Your task to perform on an android device: Open Google Maps and go to "Timeline" Image 0: 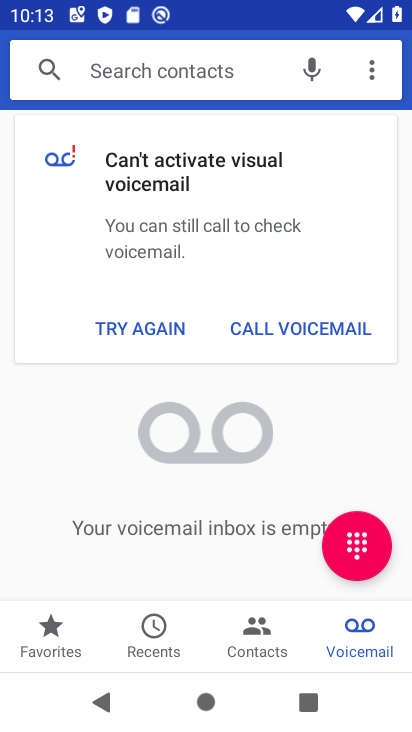
Step 0: press home button
Your task to perform on an android device: Open Google Maps and go to "Timeline" Image 1: 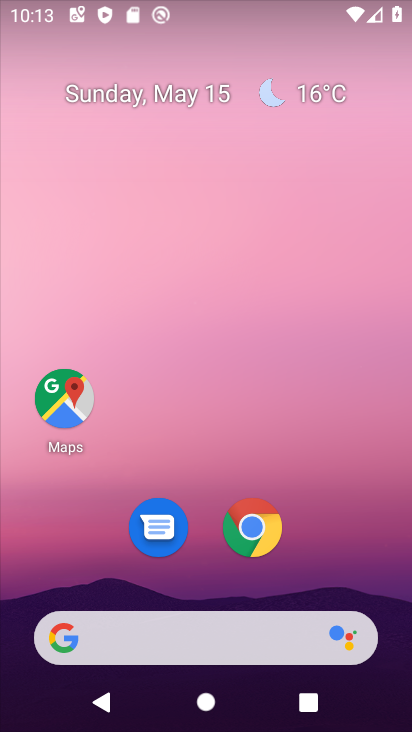
Step 1: click (64, 402)
Your task to perform on an android device: Open Google Maps and go to "Timeline" Image 2: 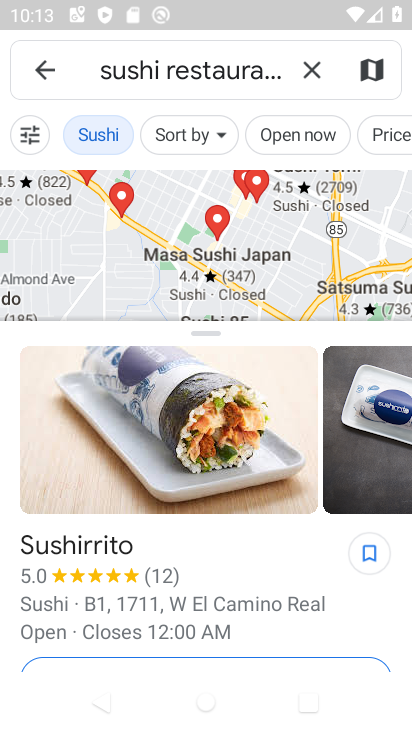
Step 2: click (305, 66)
Your task to perform on an android device: Open Google Maps and go to "Timeline" Image 3: 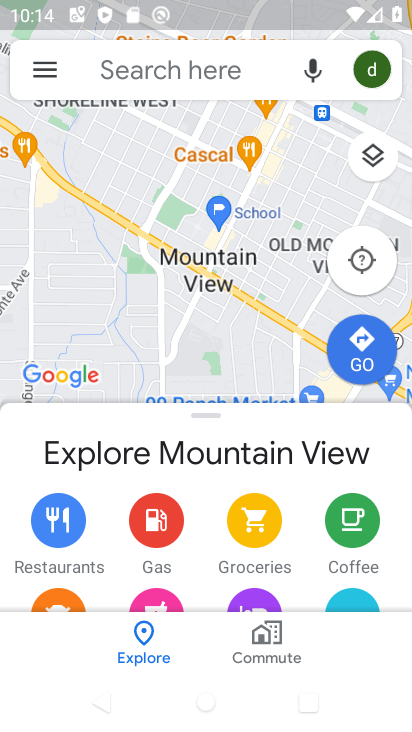
Step 3: click (48, 72)
Your task to perform on an android device: Open Google Maps and go to "Timeline" Image 4: 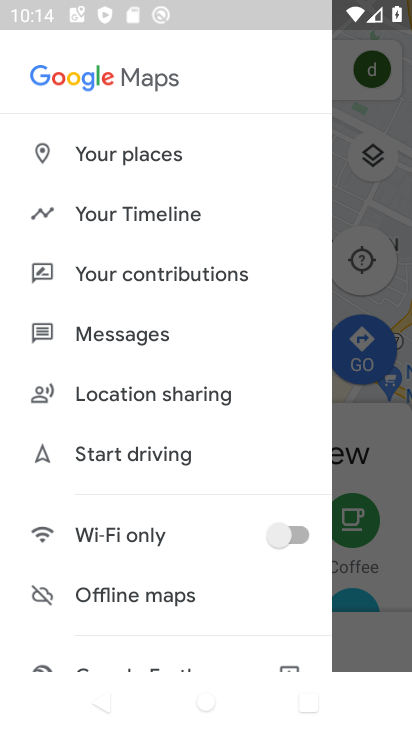
Step 4: click (101, 211)
Your task to perform on an android device: Open Google Maps and go to "Timeline" Image 5: 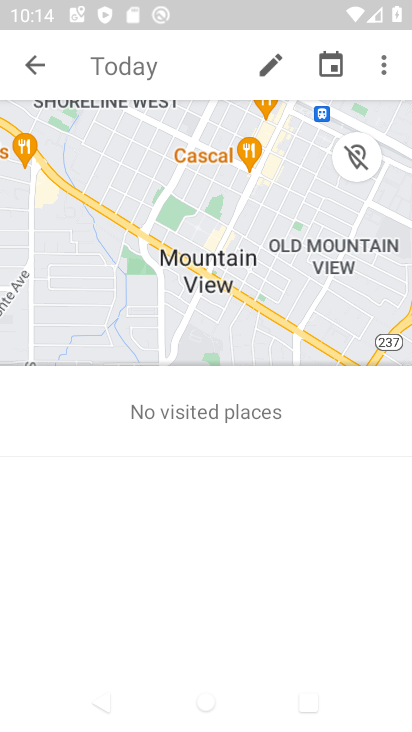
Step 5: task complete